Your task to perform on an android device: stop showing notifications on the lock screen Image 0: 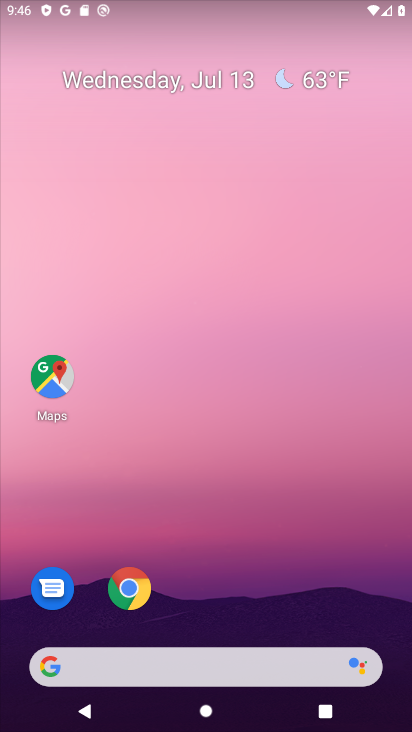
Step 0: drag from (262, 503) to (206, 43)
Your task to perform on an android device: stop showing notifications on the lock screen Image 1: 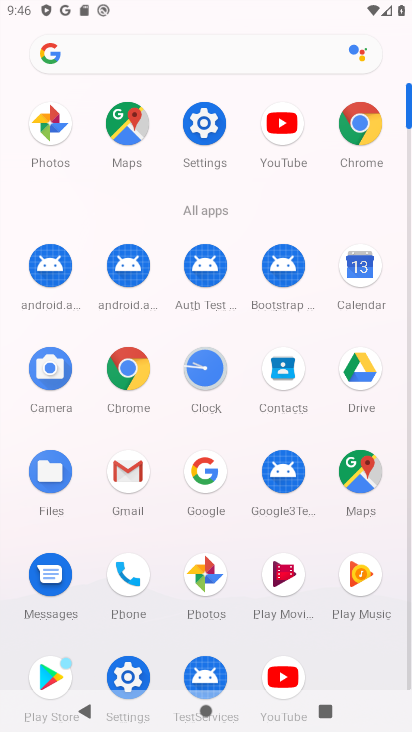
Step 1: click (207, 125)
Your task to perform on an android device: stop showing notifications on the lock screen Image 2: 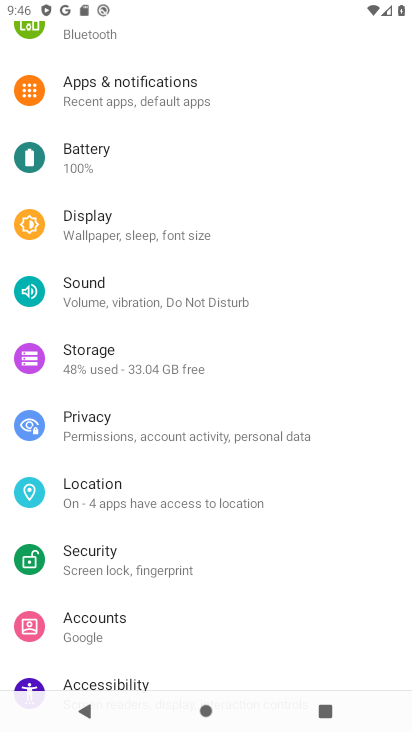
Step 2: click (97, 83)
Your task to perform on an android device: stop showing notifications on the lock screen Image 3: 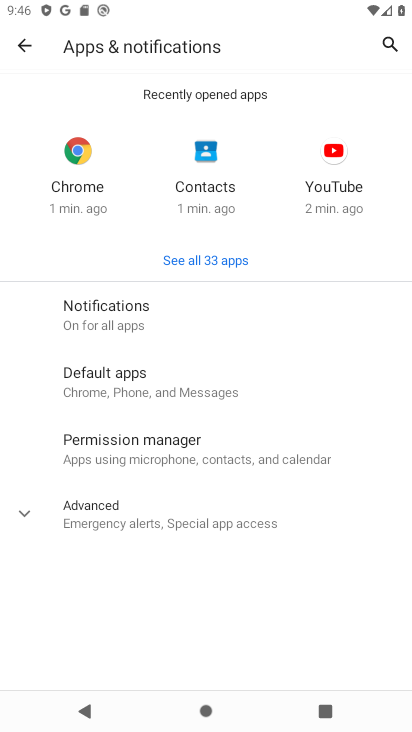
Step 3: click (111, 310)
Your task to perform on an android device: stop showing notifications on the lock screen Image 4: 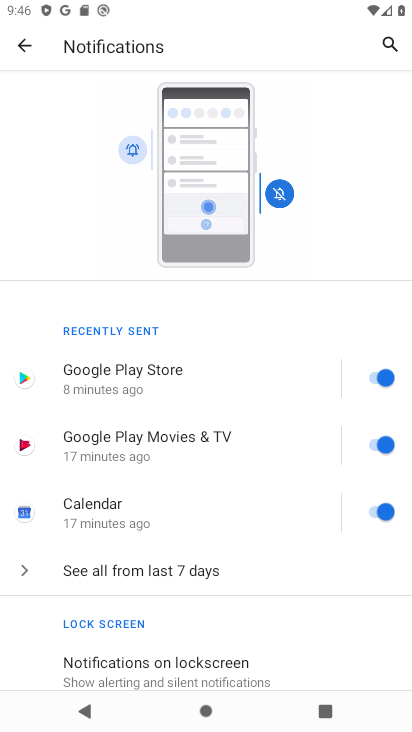
Step 4: click (207, 656)
Your task to perform on an android device: stop showing notifications on the lock screen Image 5: 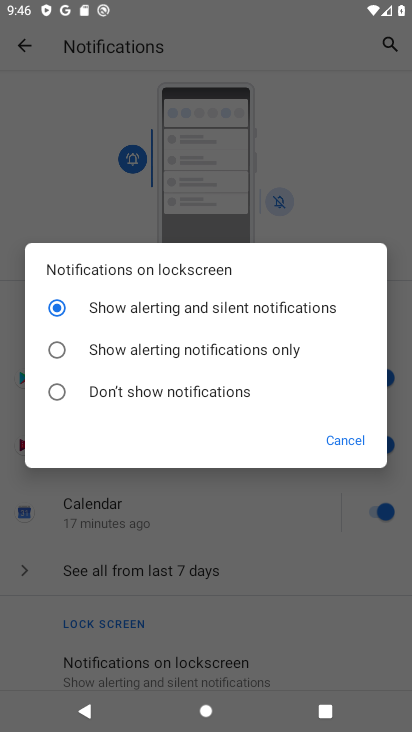
Step 5: click (47, 387)
Your task to perform on an android device: stop showing notifications on the lock screen Image 6: 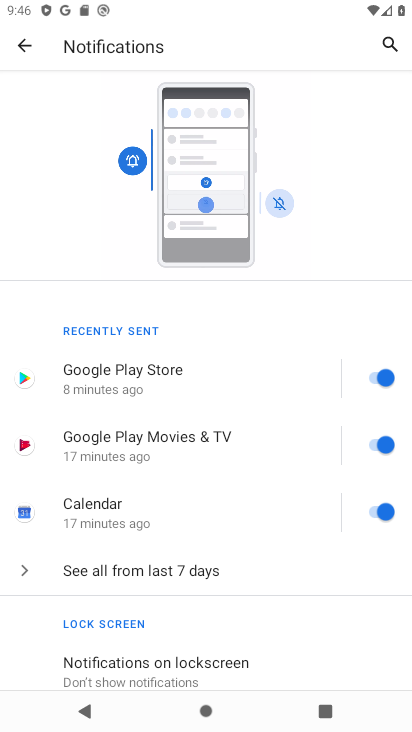
Step 6: task complete